Your task to perform on an android device: Play the last video I watched on Youtube Image 0: 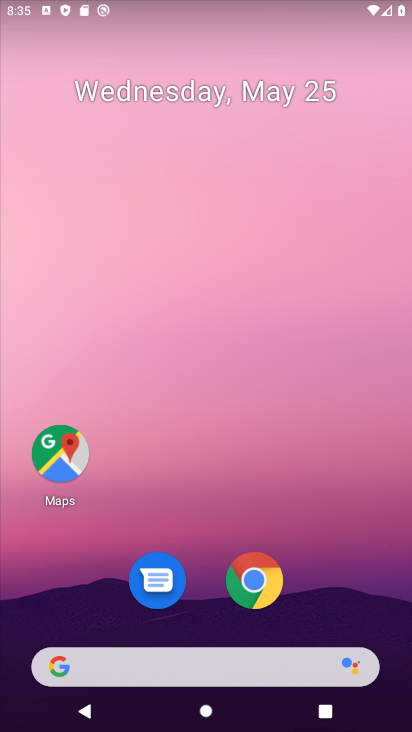
Step 0: drag from (9, 624) to (365, 253)
Your task to perform on an android device: Play the last video I watched on Youtube Image 1: 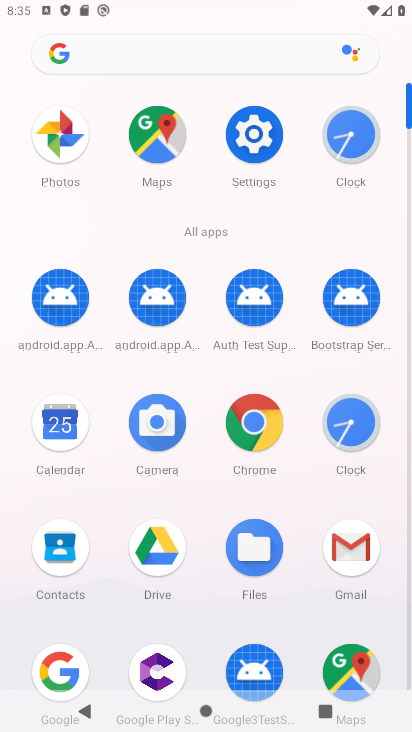
Step 1: drag from (15, 487) to (206, 165)
Your task to perform on an android device: Play the last video I watched on Youtube Image 2: 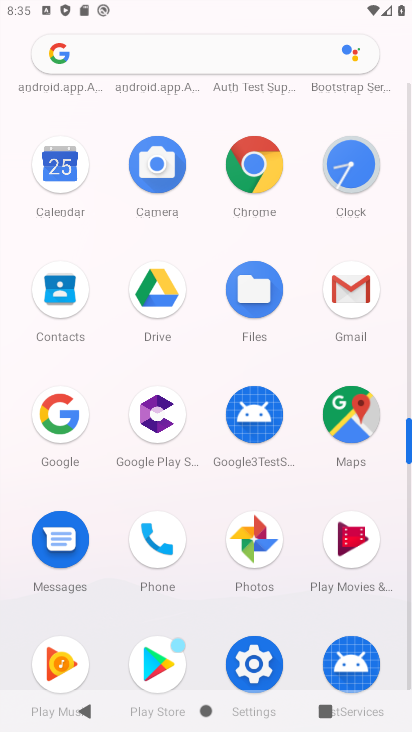
Step 2: drag from (17, 504) to (207, 224)
Your task to perform on an android device: Play the last video I watched on Youtube Image 3: 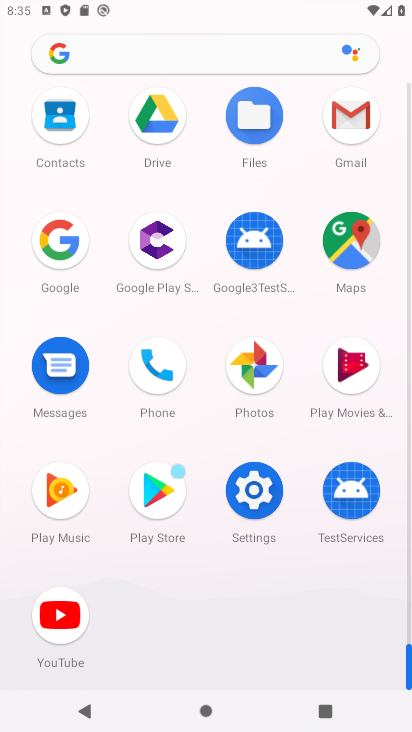
Step 3: click (62, 630)
Your task to perform on an android device: Play the last video I watched on Youtube Image 4: 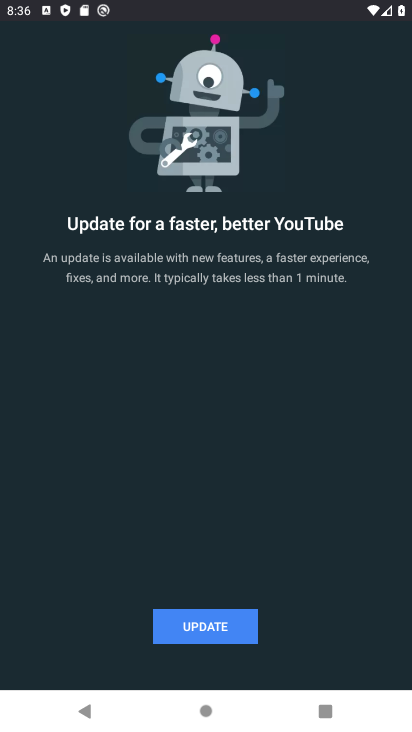
Step 4: task complete